Your task to perform on an android device: turn vacation reply on in the gmail app Image 0: 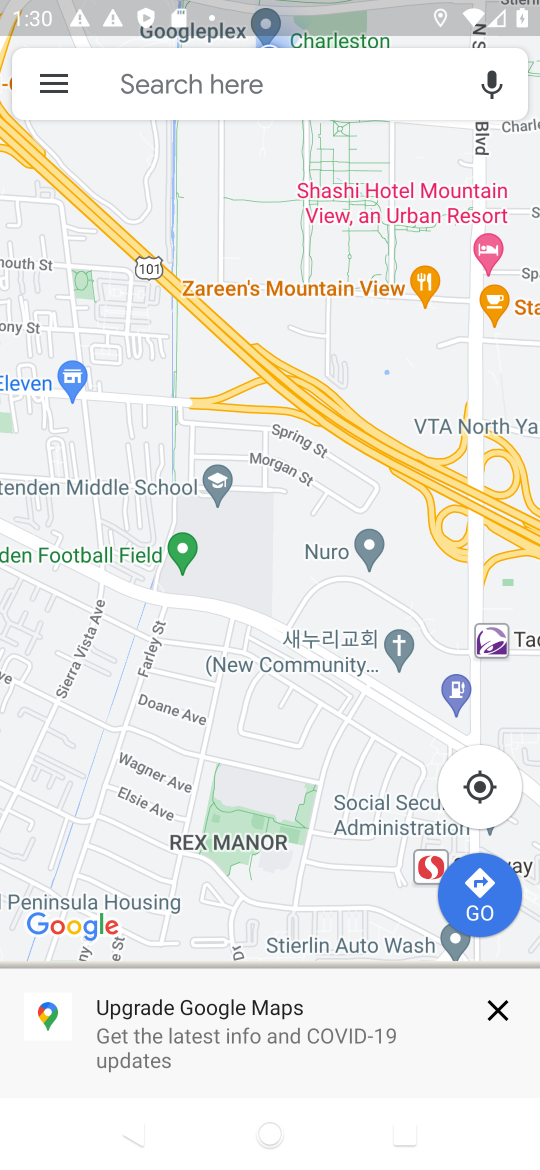
Step 0: press home button
Your task to perform on an android device: turn vacation reply on in the gmail app Image 1: 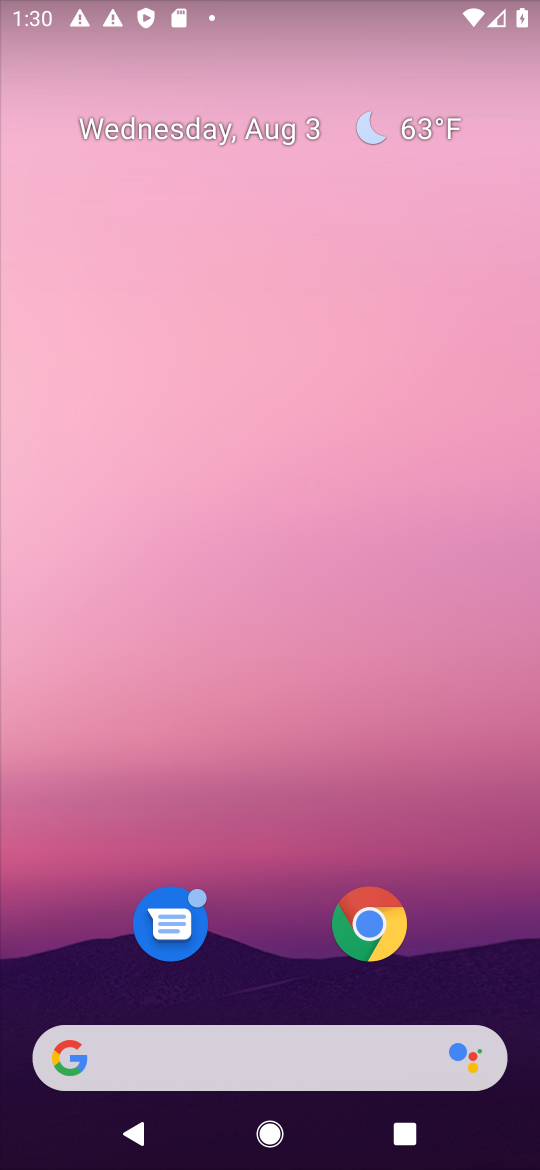
Step 1: drag from (267, 985) to (331, 76)
Your task to perform on an android device: turn vacation reply on in the gmail app Image 2: 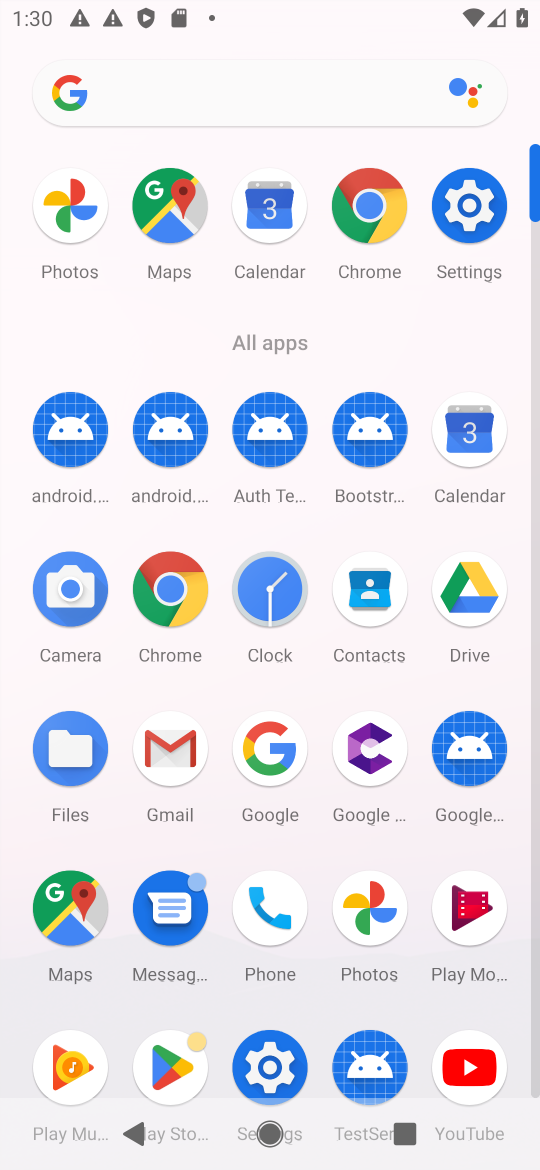
Step 2: click (164, 743)
Your task to perform on an android device: turn vacation reply on in the gmail app Image 3: 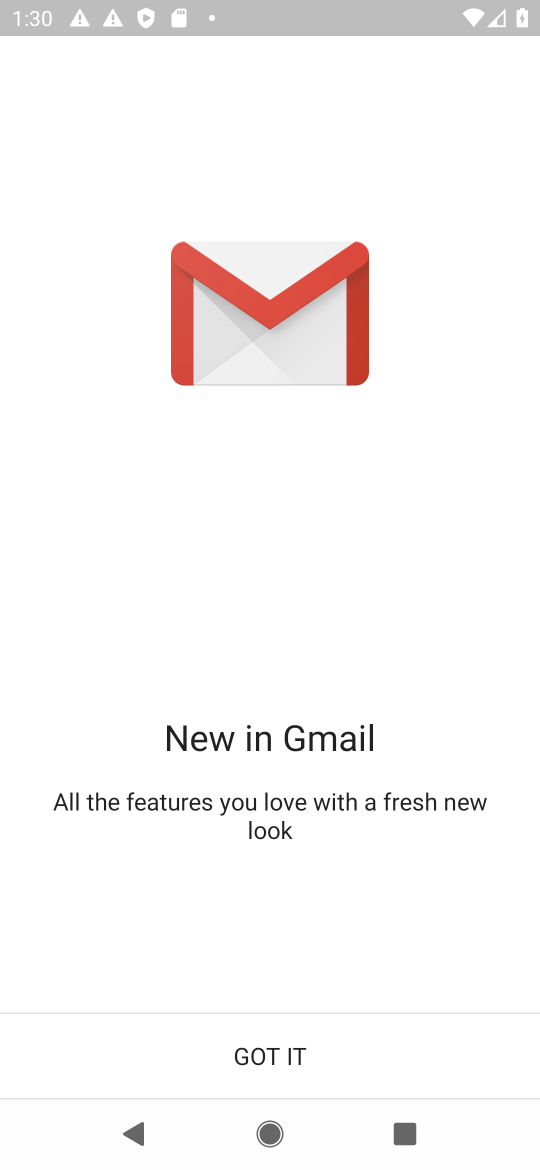
Step 3: click (278, 1058)
Your task to perform on an android device: turn vacation reply on in the gmail app Image 4: 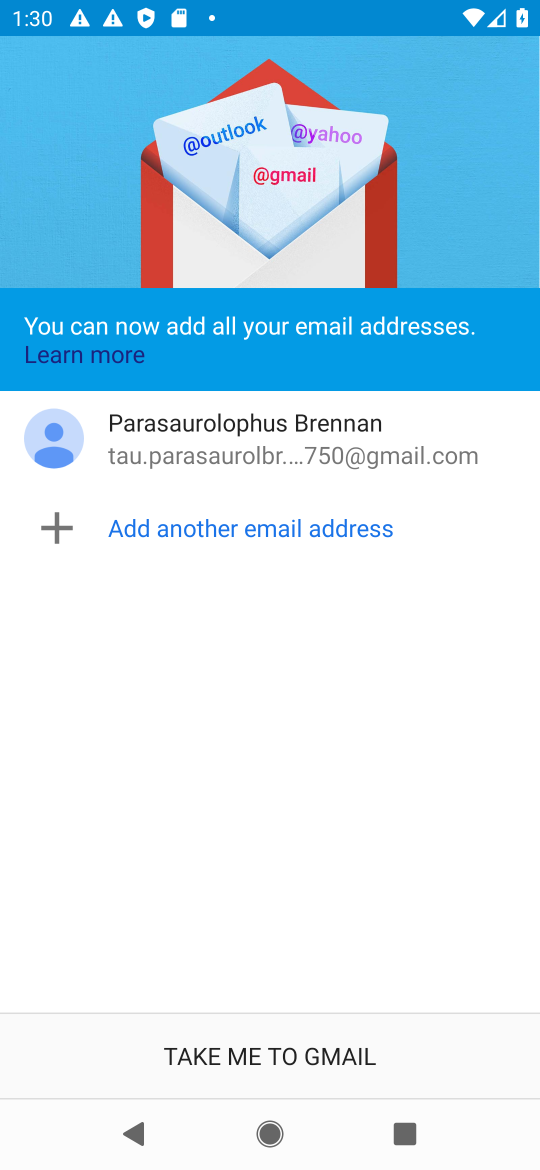
Step 4: click (255, 1056)
Your task to perform on an android device: turn vacation reply on in the gmail app Image 5: 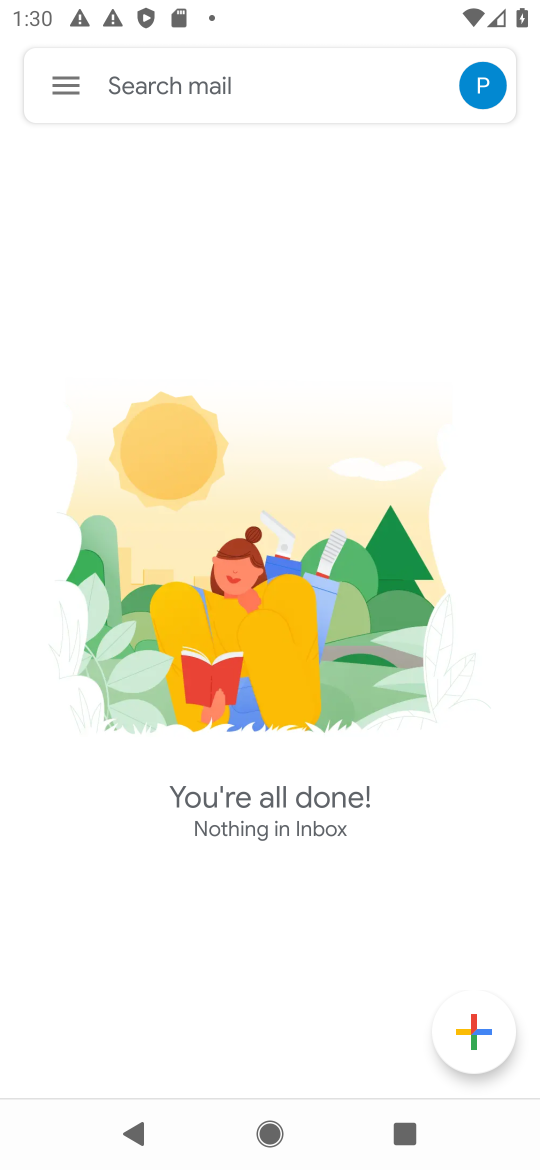
Step 5: click (60, 83)
Your task to perform on an android device: turn vacation reply on in the gmail app Image 6: 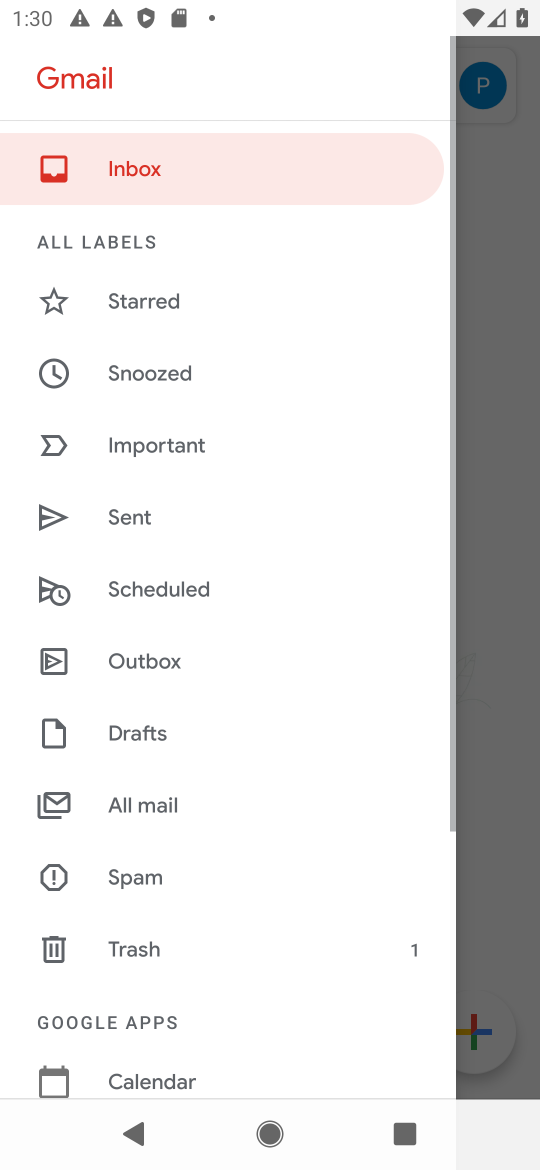
Step 6: drag from (187, 1036) to (180, 234)
Your task to perform on an android device: turn vacation reply on in the gmail app Image 7: 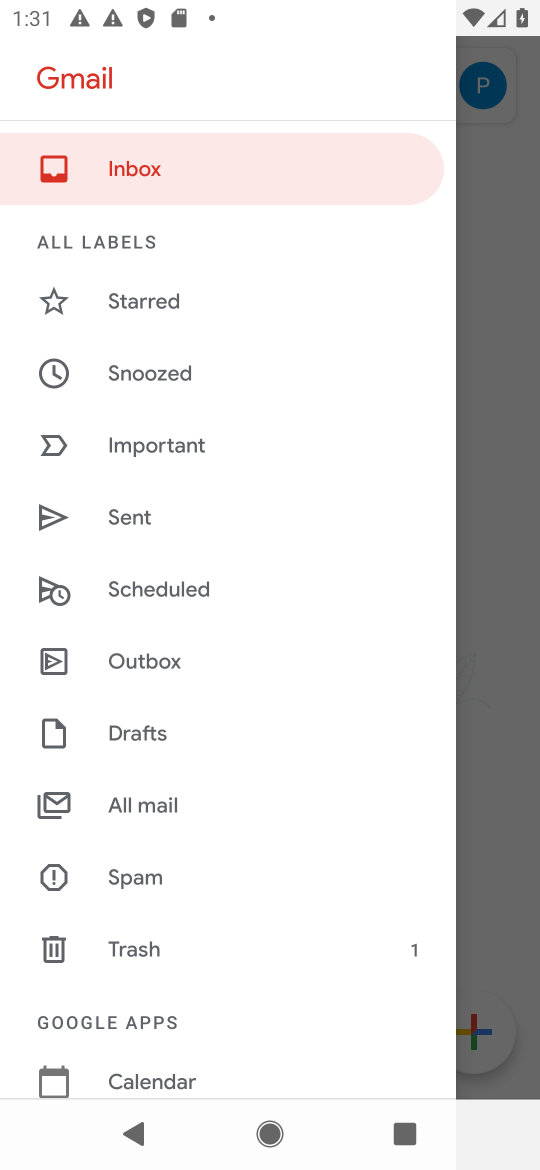
Step 7: drag from (167, 1020) to (262, 263)
Your task to perform on an android device: turn vacation reply on in the gmail app Image 8: 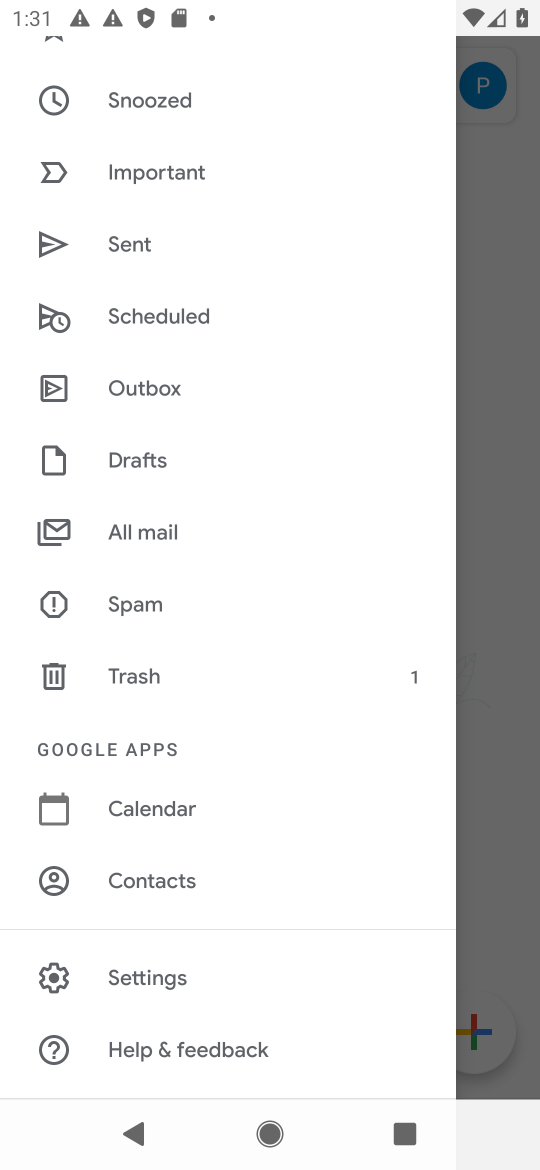
Step 8: click (187, 973)
Your task to perform on an android device: turn vacation reply on in the gmail app Image 9: 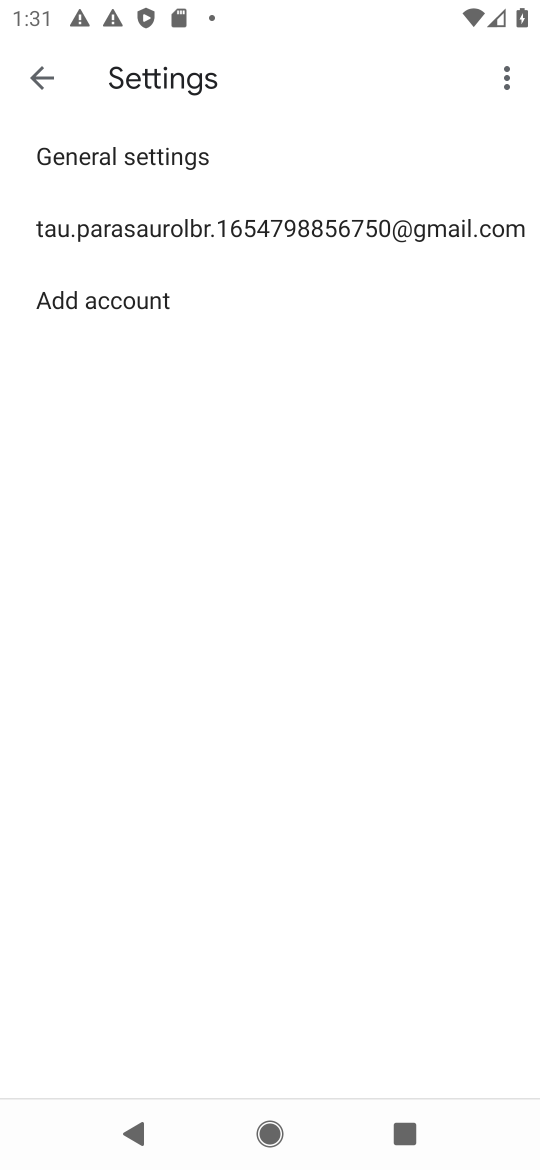
Step 9: click (235, 230)
Your task to perform on an android device: turn vacation reply on in the gmail app Image 10: 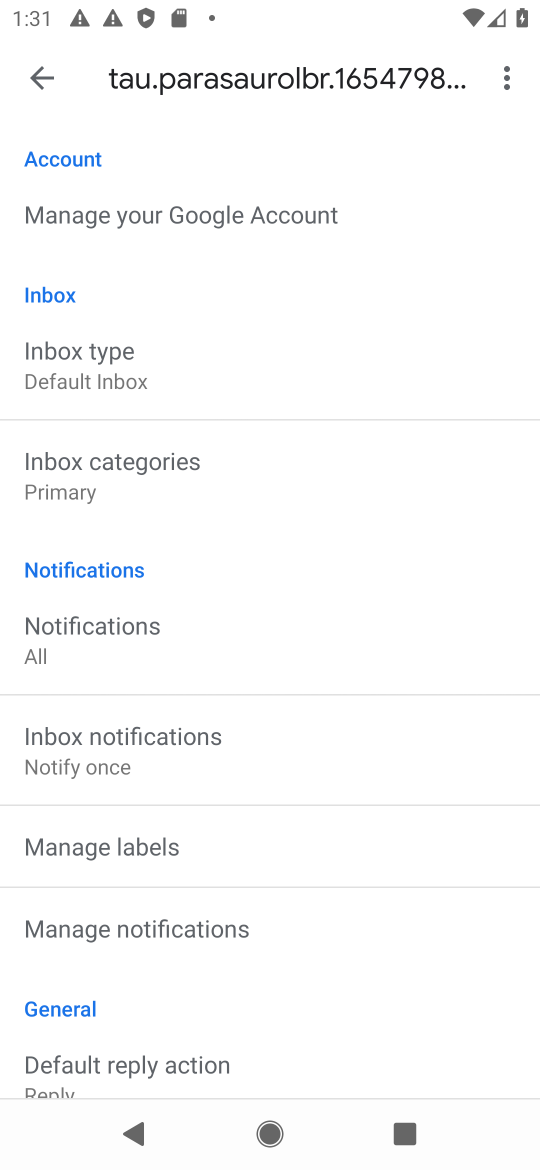
Step 10: drag from (211, 1006) to (241, 223)
Your task to perform on an android device: turn vacation reply on in the gmail app Image 11: 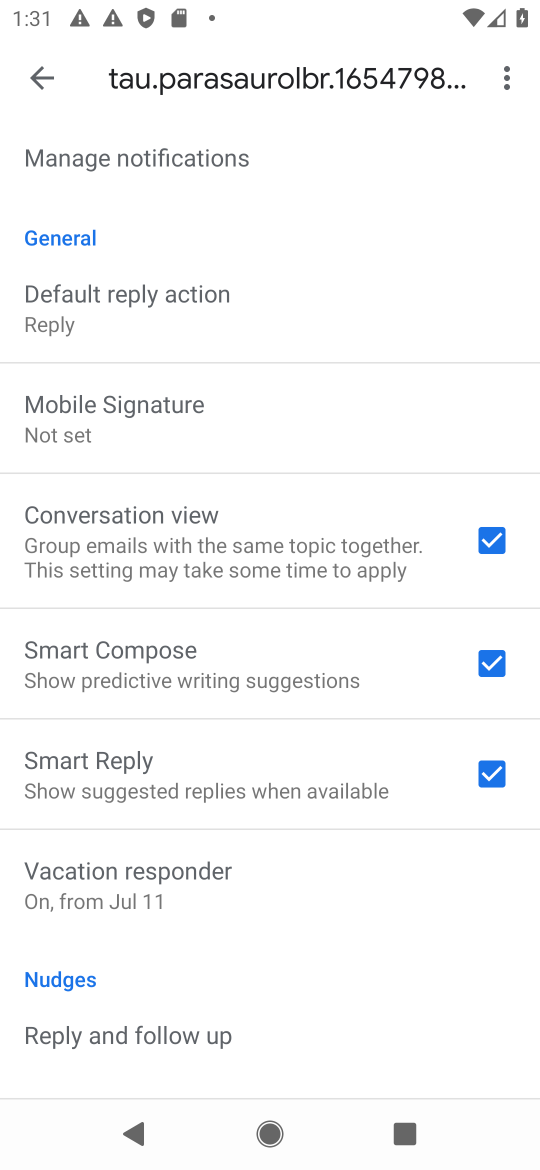
Step 11: click (234, 888)
Your task to perform on an android device: turn vacation reply on in the gmail app Image 12: 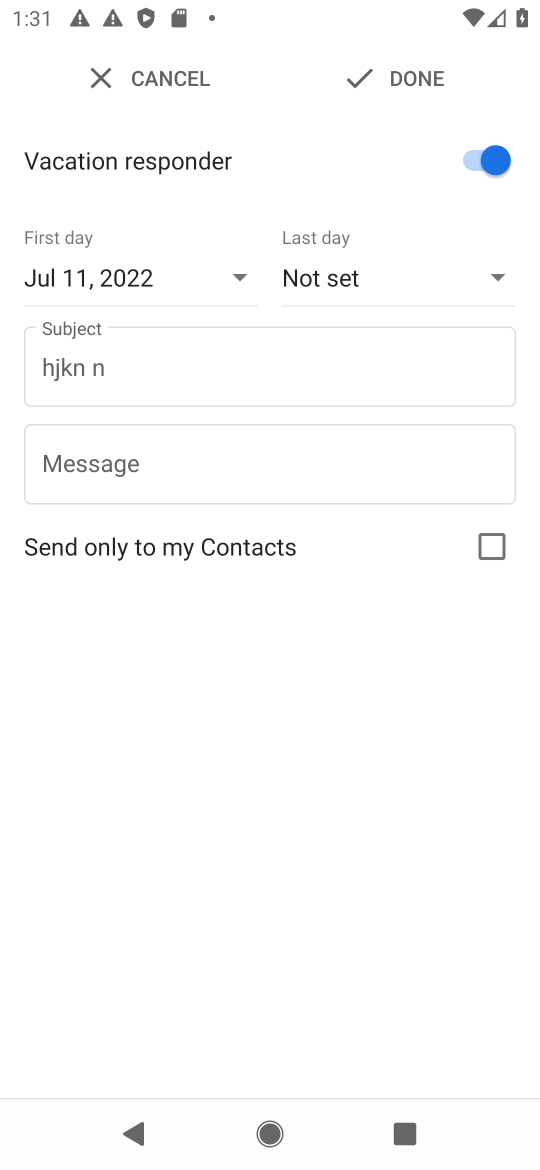
Step 12: task complete